Your task to perform on an android device: Go to Reddit.com Image 0: 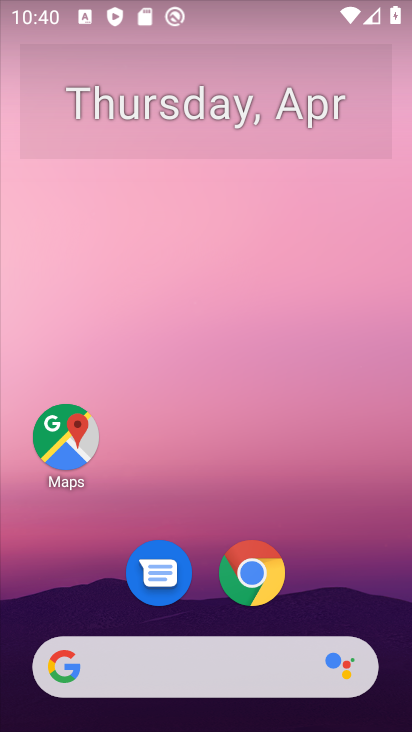
Step 0: click (248, 574)
Your task to perform on an android device: Go to Reddit.com Image 1: 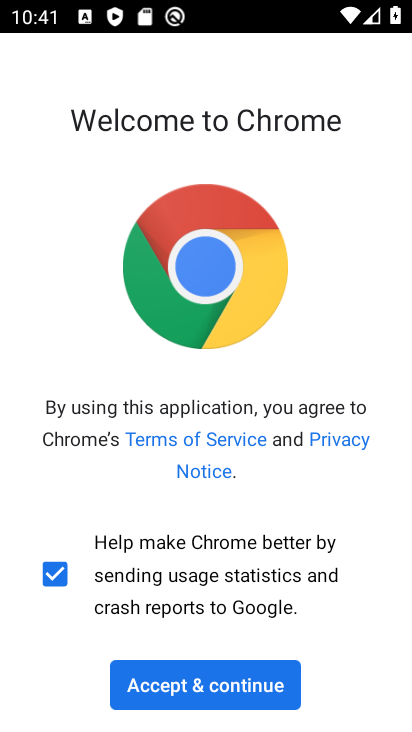
Step 1: click (222, 686)
Your task to perform on an android device: Go to Reddit.com Image 2: 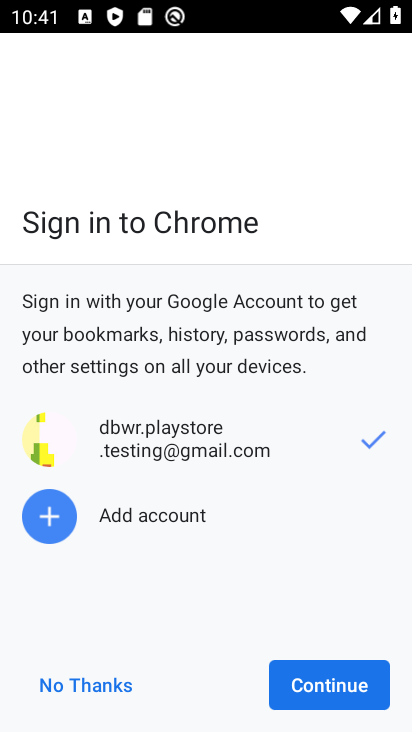
Step 2: click (368, 706)
Your task to perform on an android device: Go to Reddit.com Image 3: 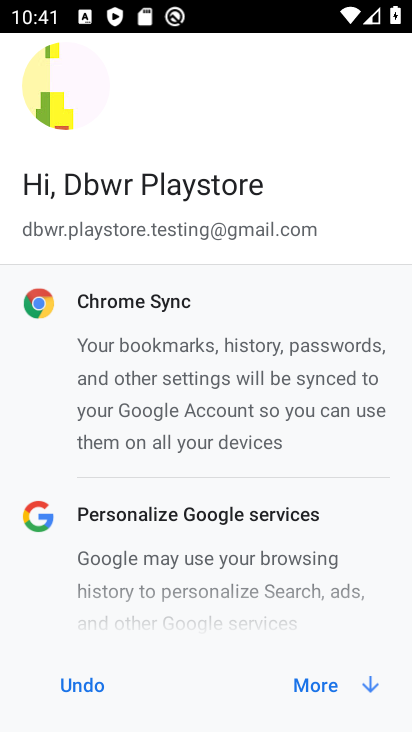
Step 3: click (368, 706)
Your task to perform on an android device: Go to Reddit.com Image 4: 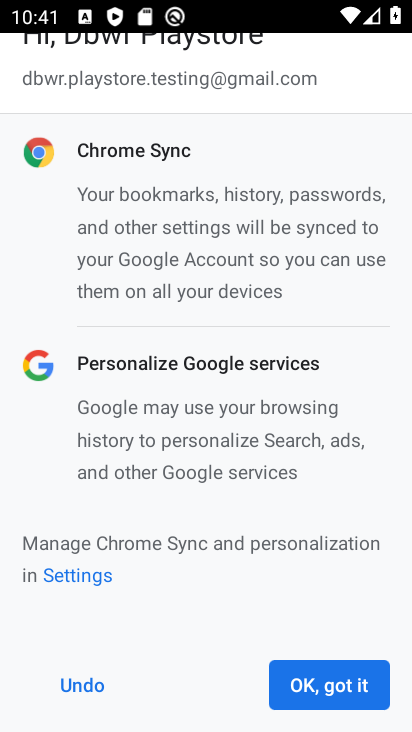
Step 4: click (338, 681)
Your task to perform on an android device: Go to Reddit.com Image 5: 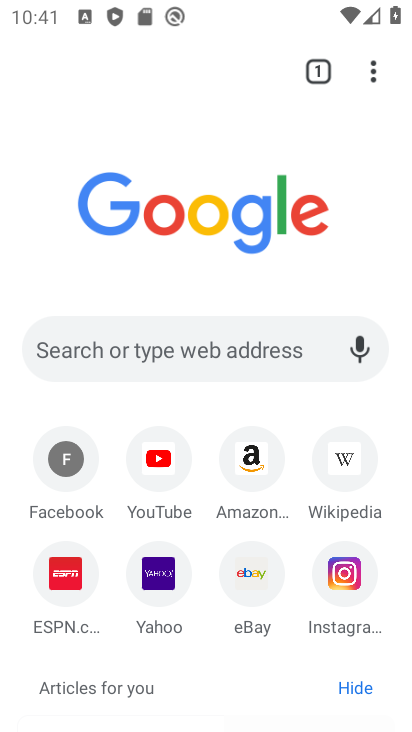
Step 5: click (240, 350)
Your task to perform on an android device: Go to Reddit.com Image 6: 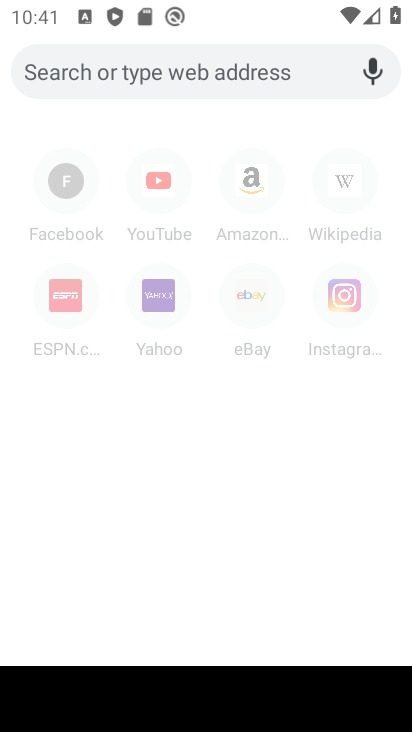
Step 6: type "raddit"
Your task to perform on an android device: Go to Reddit.com Image 7: 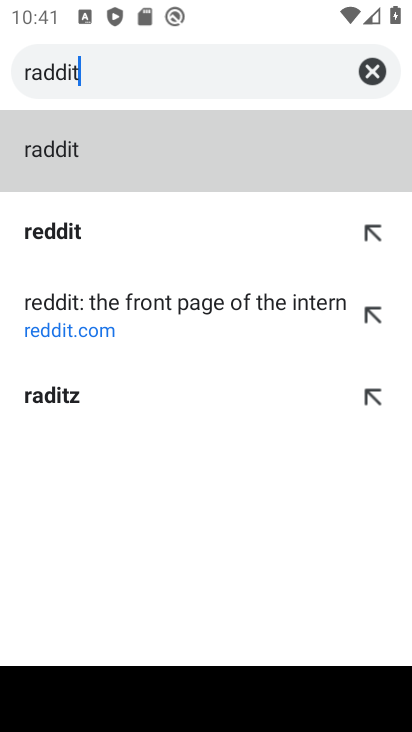
Step 7: click (68, 322)
Your task to perform on an android device: Go to Reddit.com Image 8: 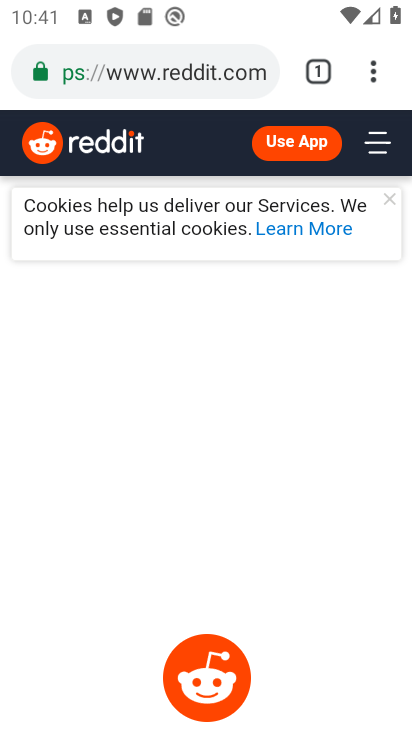
Step 8: task complete